Your task to perform on an android device: Open notification settings Image 0: 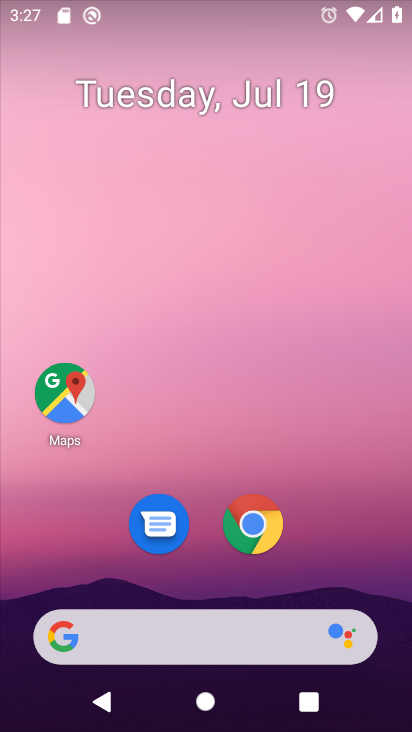
Step 0: drag from (322, 540) to (346, 55)
Your task to perform on an android device: Open notification settings Image 1: 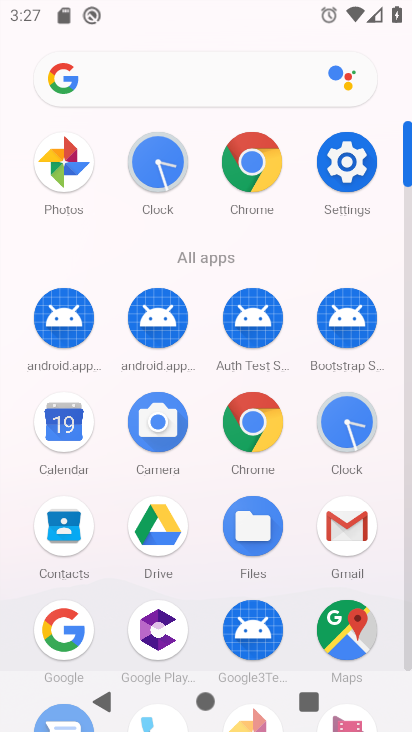
Step 1: click (353, 154)
Your task to perform on an android device: Open notification settings Image 2: 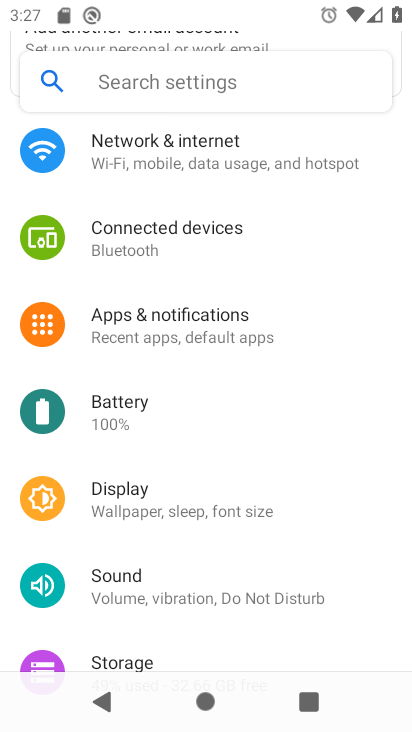
Step 2: click (214, 334)
Your task to perform on an android device: Open notification settings Image 3: 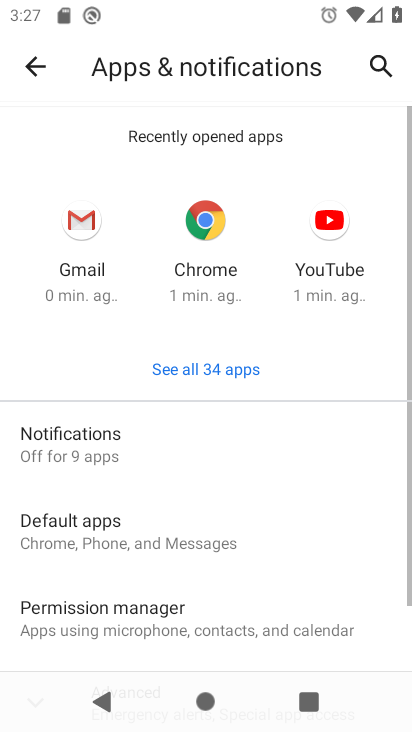
Step 3: click (93, 433)
Your task to perform on an android device: Open notification settings Image 4: 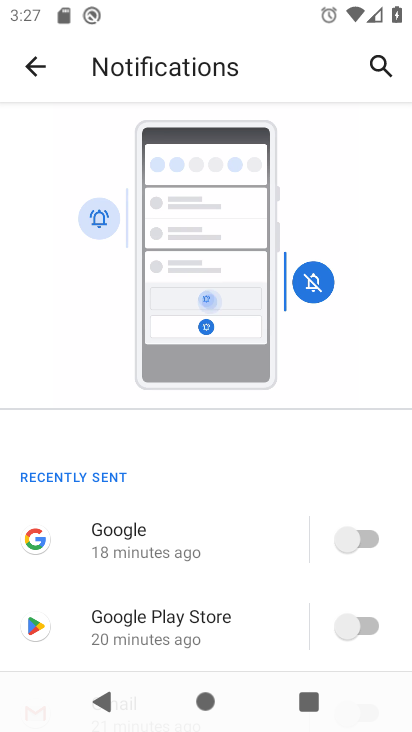
Step 4: task complete